Your task to perform on an android device: add a contact Image 0: 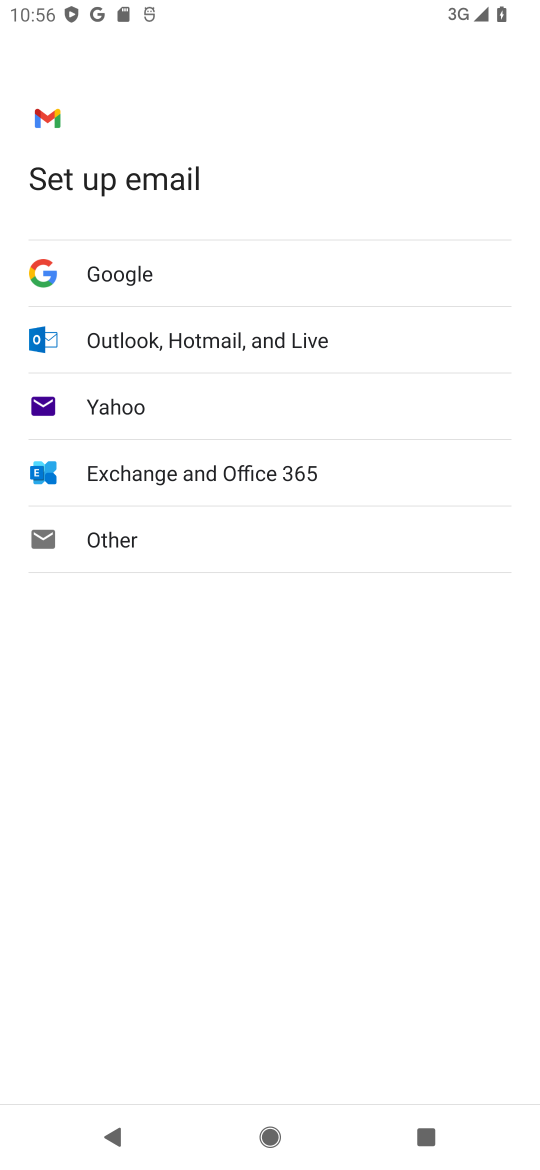
Step 0: press home button
Your task to perform on an android device: add a contact Image 1: 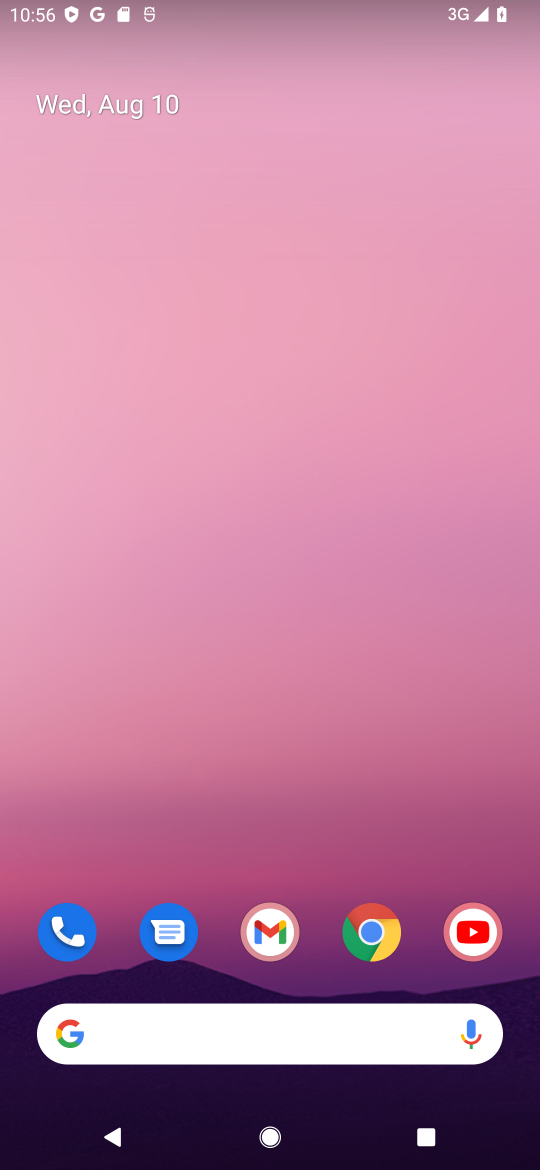
Step 1: drag from (321, 860) to (276, 118)
Your task to perform on an android device: add a contact Image 2: 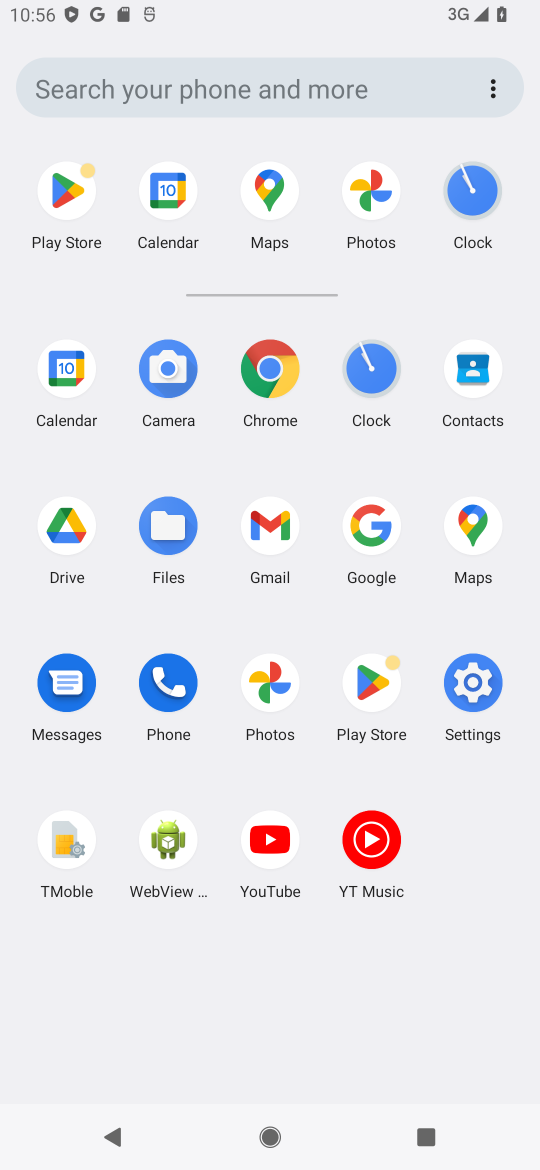
Step 2: click (481, 366)
Your task to perform on an android device: add a contact Image 3: 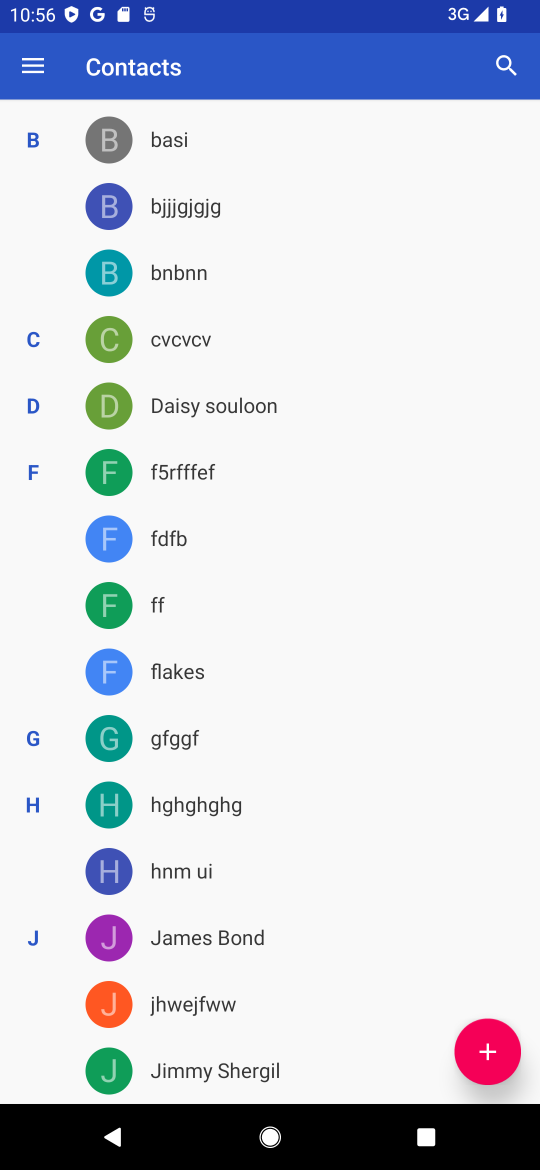
Step 3: click (497, 1046)
Your task to perform on an android device: add a contact Image 4: 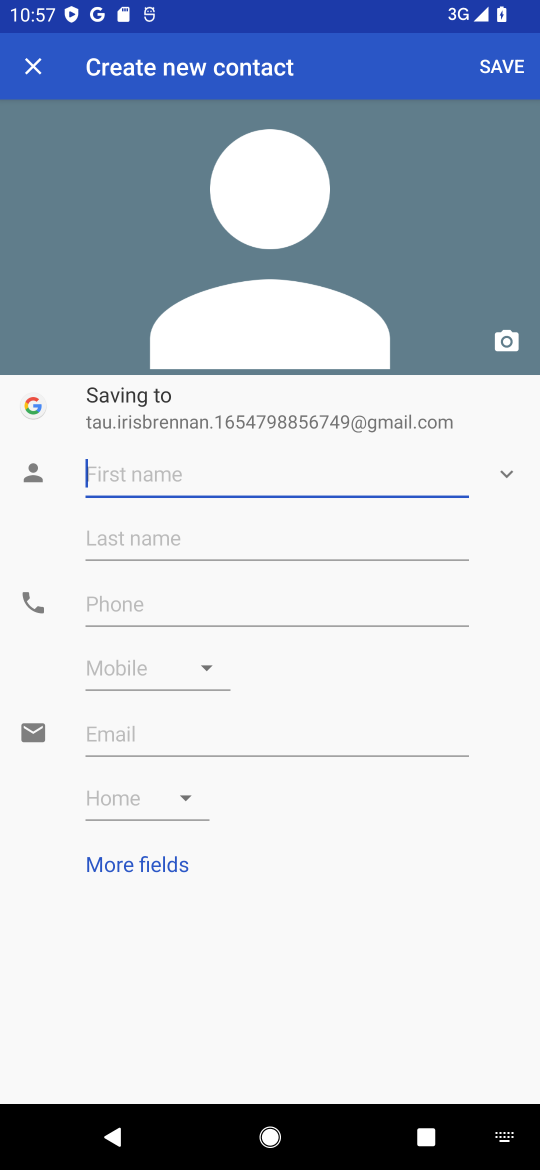
Step 4: type "kjhgfd"
Your task to perform on an android device: add a contact Image 5: 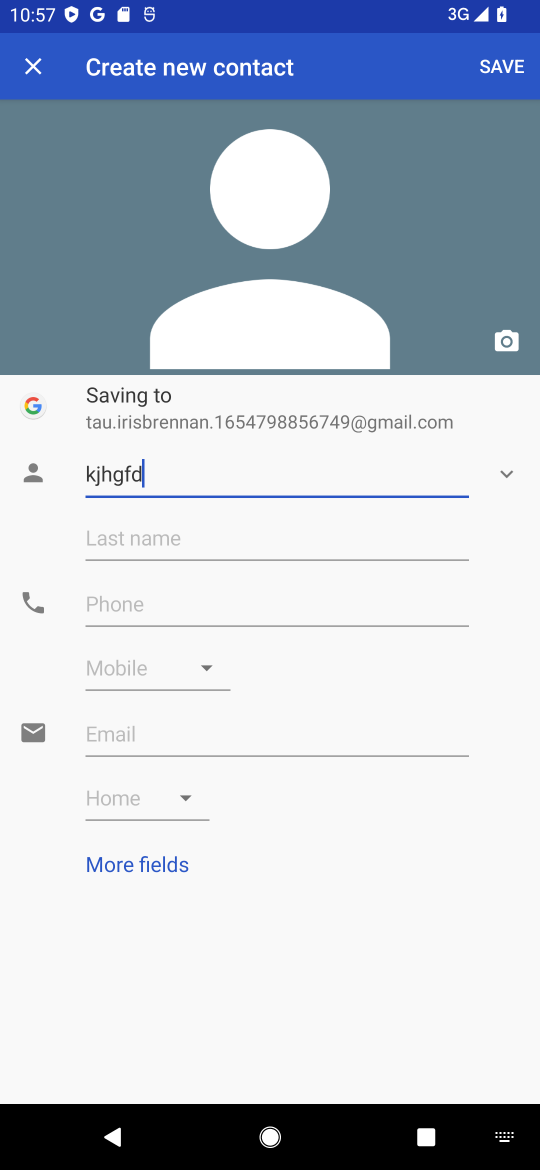
Step 5: click (171, 588)
Your task to perform on an android device: add a contact Image 6: 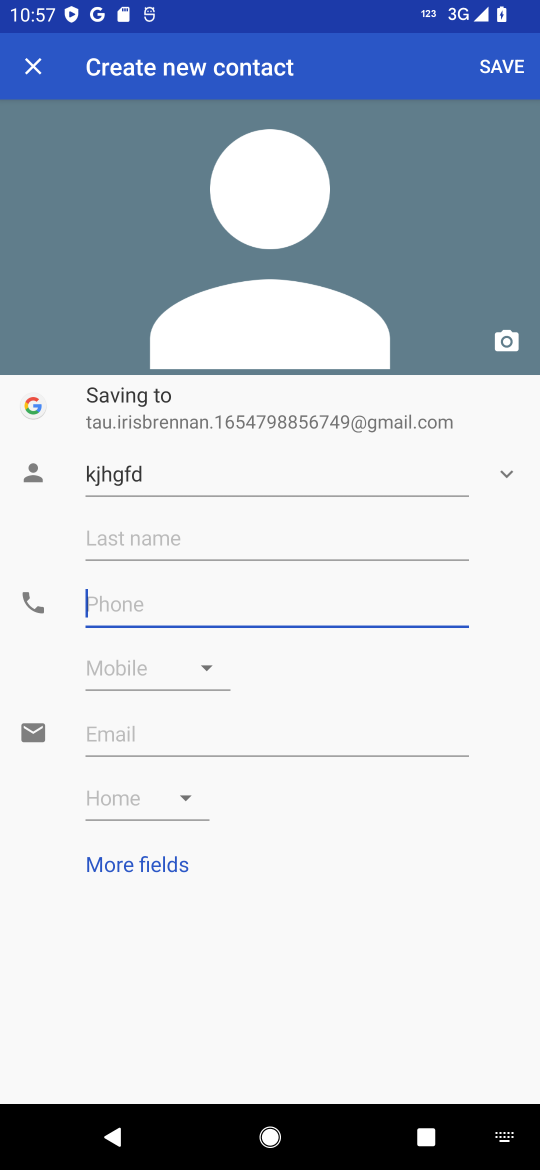
Step 6: type "876543"
Your task to perform on an android device: add a contact Image 7: 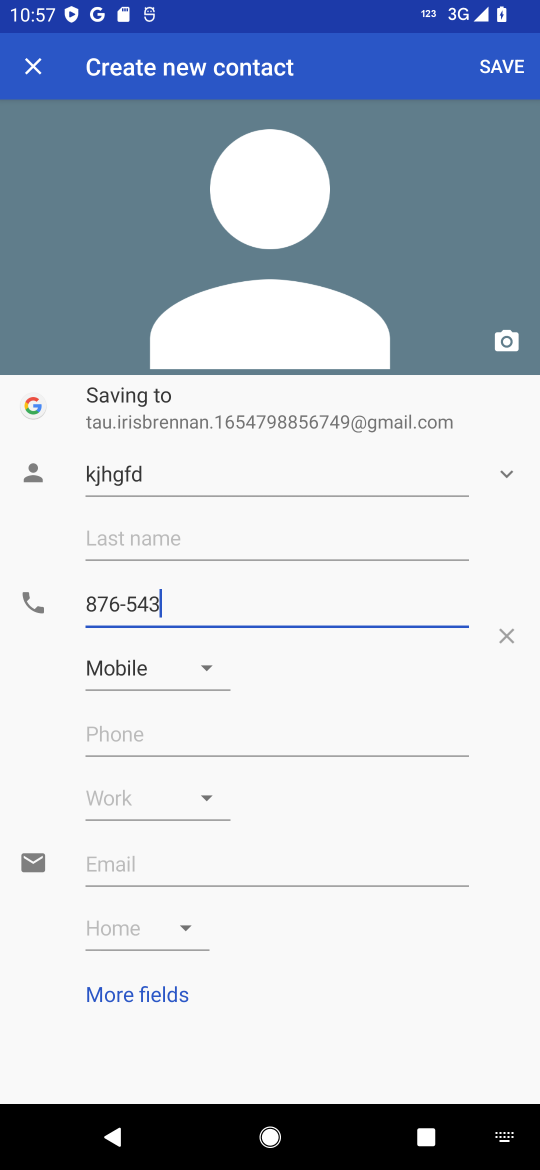
Step 7: click (503, 63)
Your task to perform on an android device: add a contact Image 8: 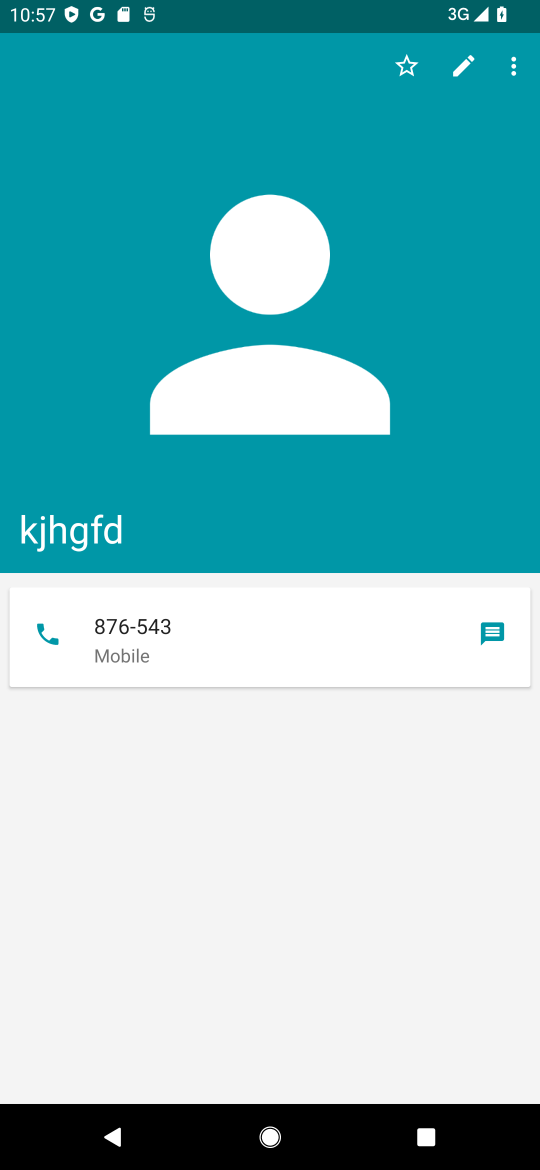
Step 8: task complete